Your task to perform on an android device: What's on Reddit this week Image 0: 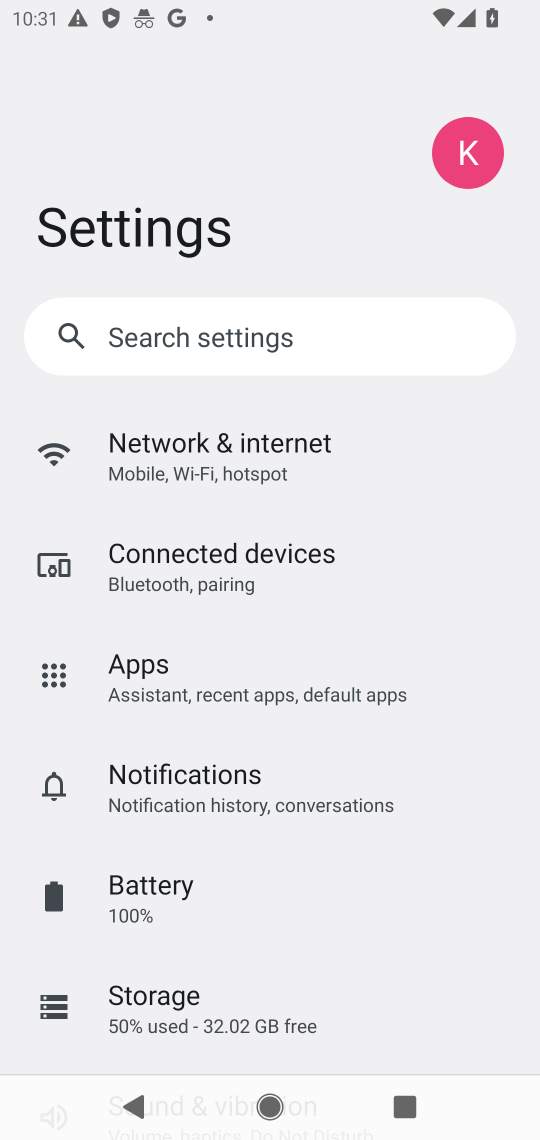
Step 0: press home button
Your task to perform on an android device: What's on Reddit this week Image 1: 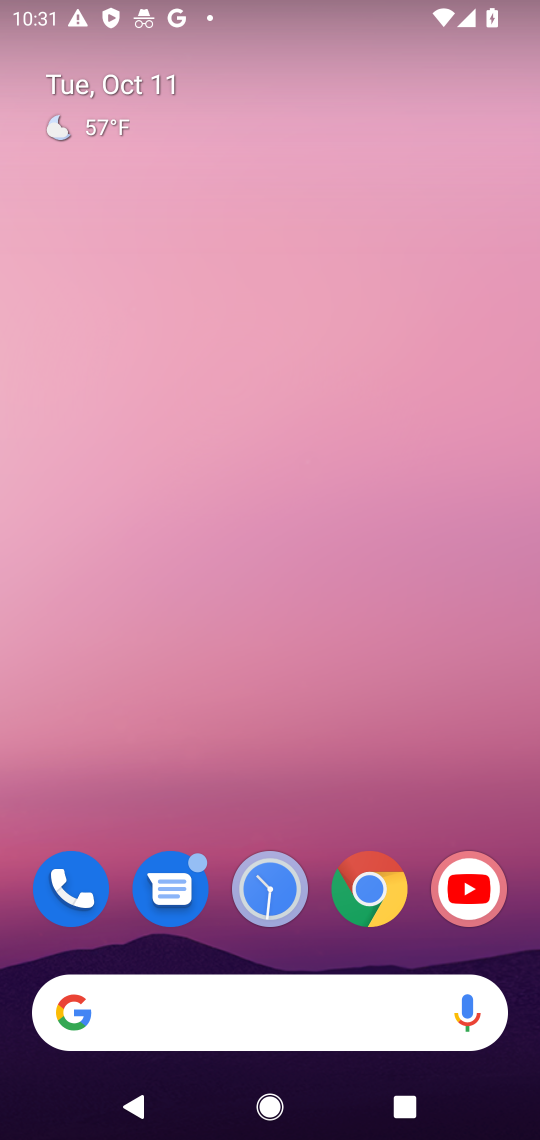
Step 1: click (226, 1015)
Your task to perform on an android device: What's on Reddit this week Image 2: 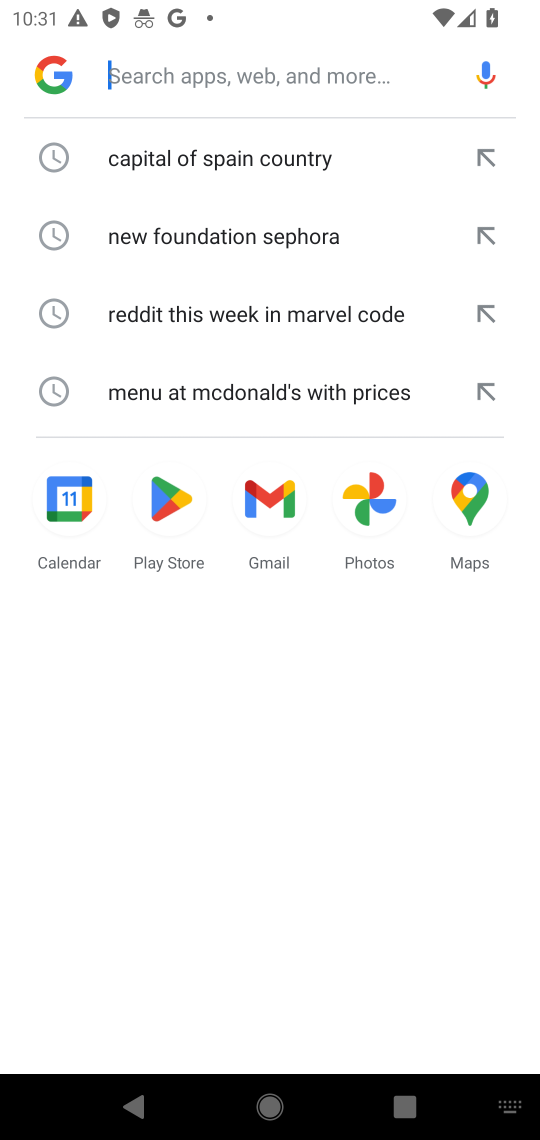
Step 2: click (160, 82)
Your task to perform on an android device: What's on Reddit this week Image 3: 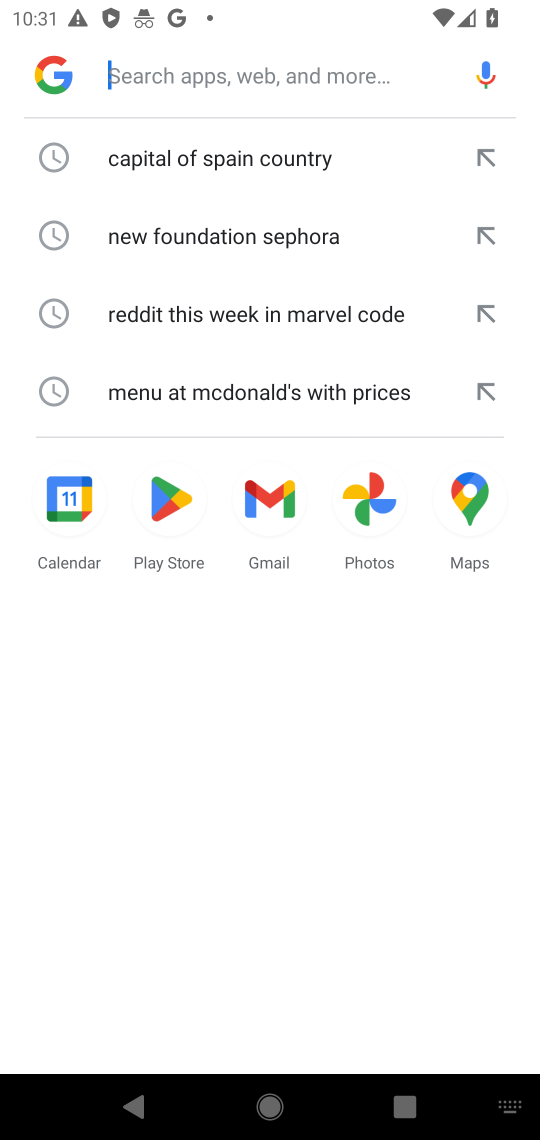
Step 3: type "Reddit this week"
Your task to perform on an android device: What's on Reddit this week Image 4: 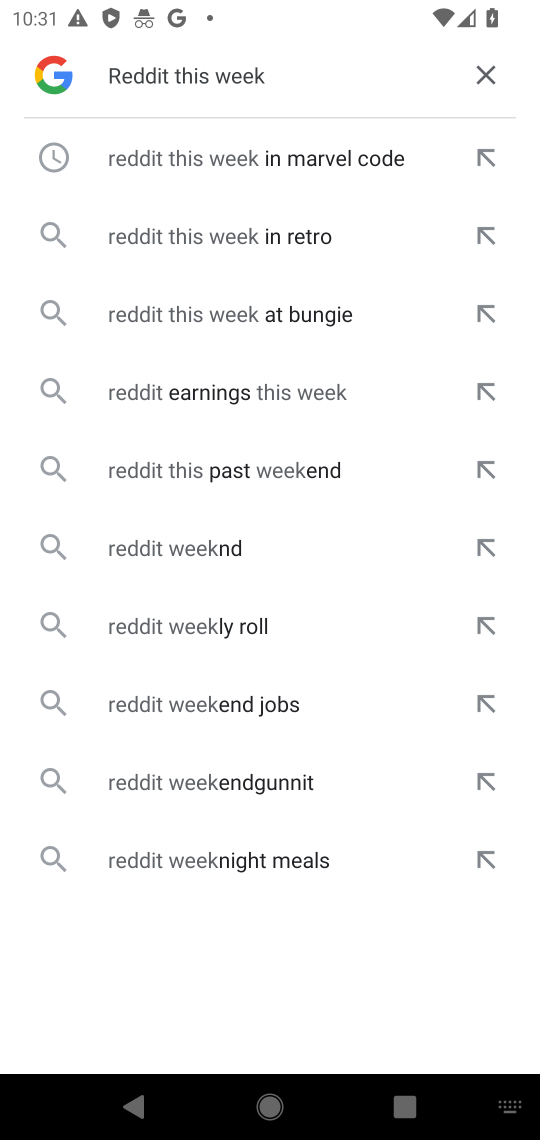
Step 4: click (202, 548)
Your task to perform on an android device: What's on Reddit this week Image 5: 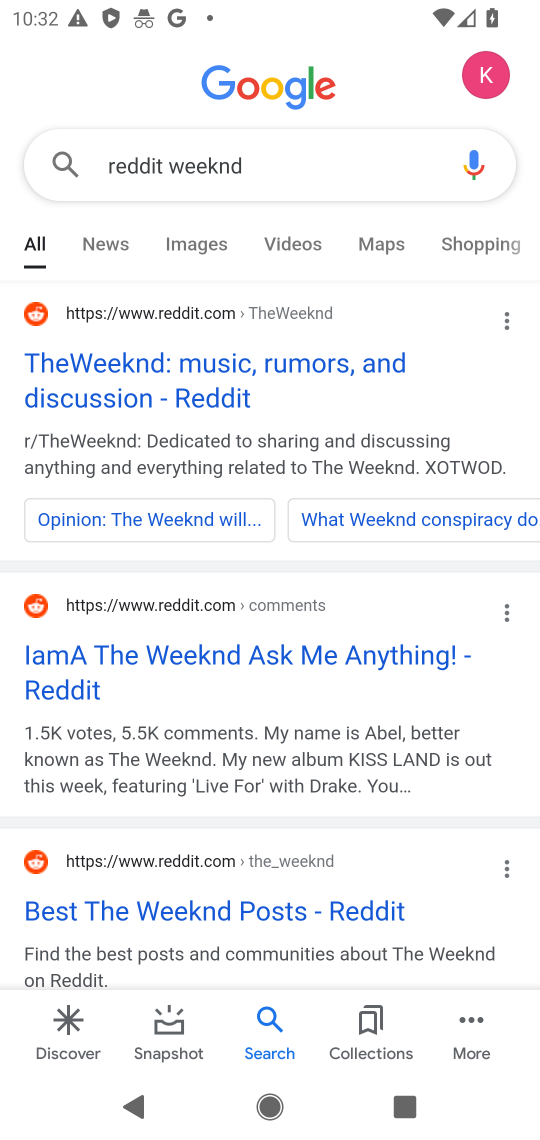
Step 5: click (166, 410)
Your task to perform on an android device: What's on Reddit this week Image 6: 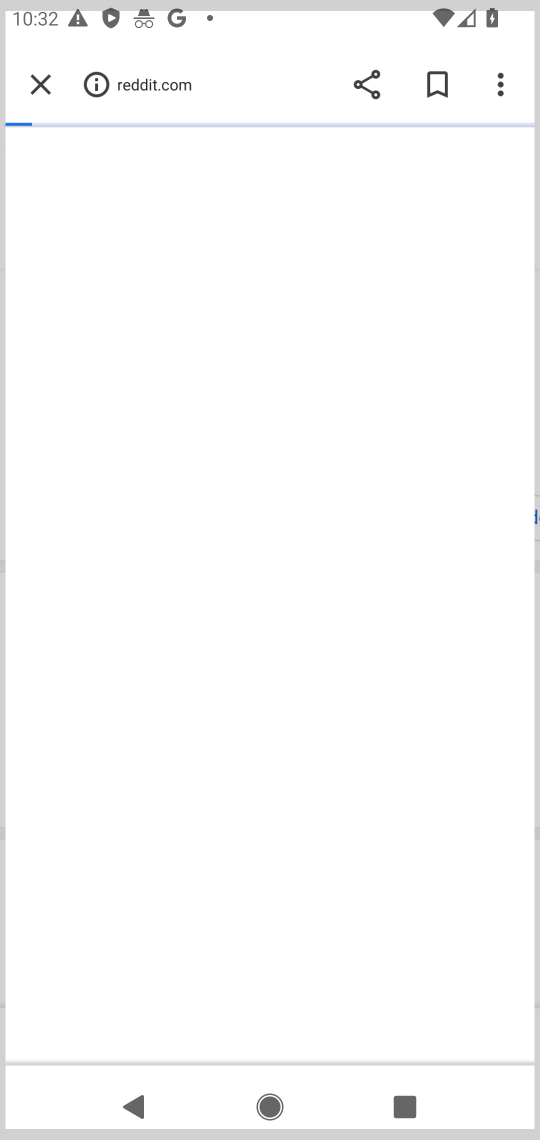
Step 6: task complete